Your task to perform on an android device: See recent photos Image 0: 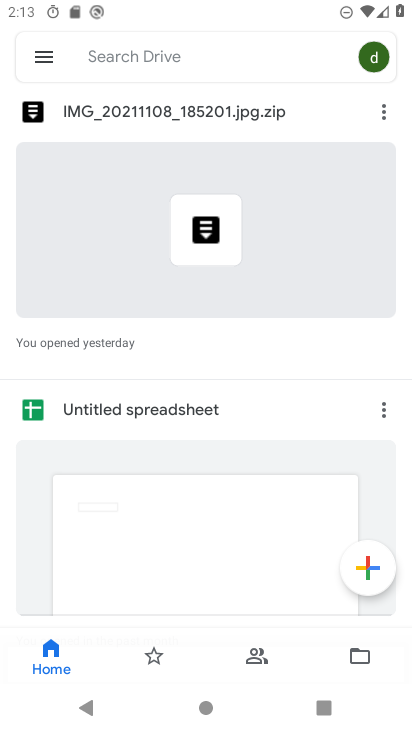
Step 0: press home button
Your task to perform on an android device: See recent photos Image 1: 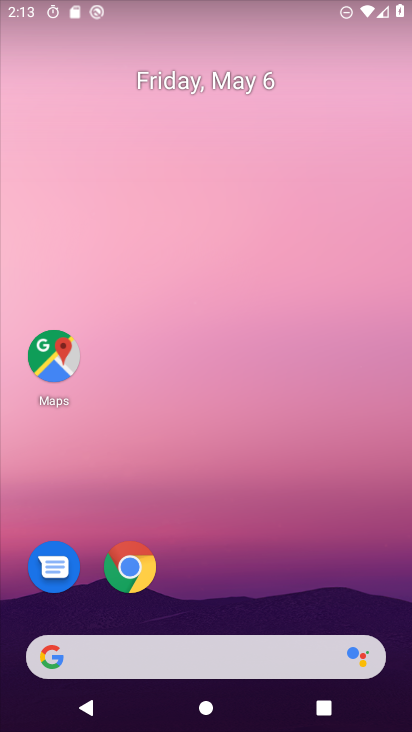
Step 1: drag from (244, 686) to (226, 384)
Your task to perform on an android device: See recent photos Image 2: 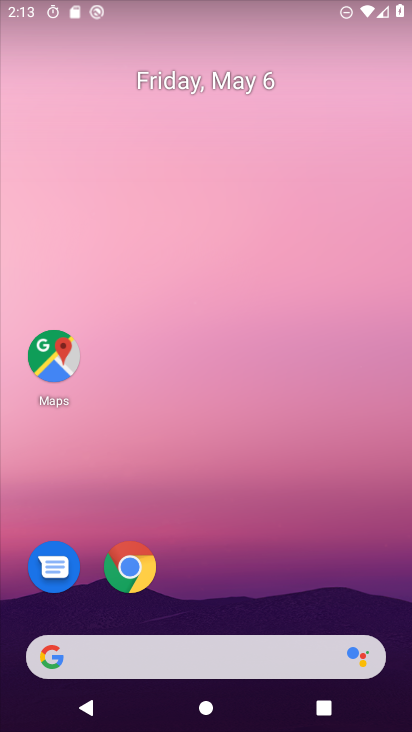
Step 2: drag from (271, 700) to (239, 310)
Your task to perform on an android device: See recent photos Image 3: 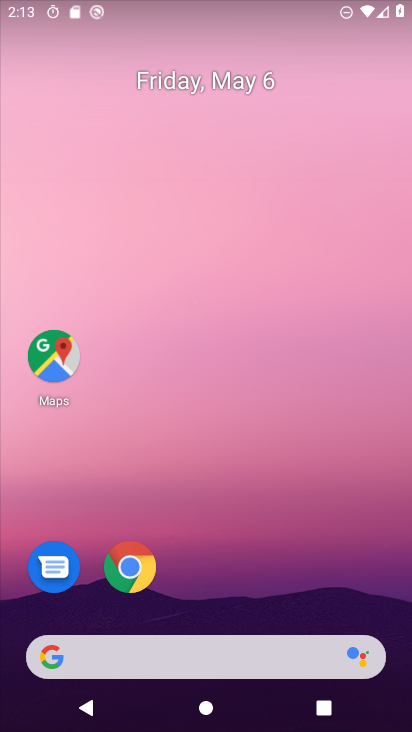
Step 3: drag from (248, 676) to (240, 244)
Your task to perform on an android device: See recent photos Image 4: 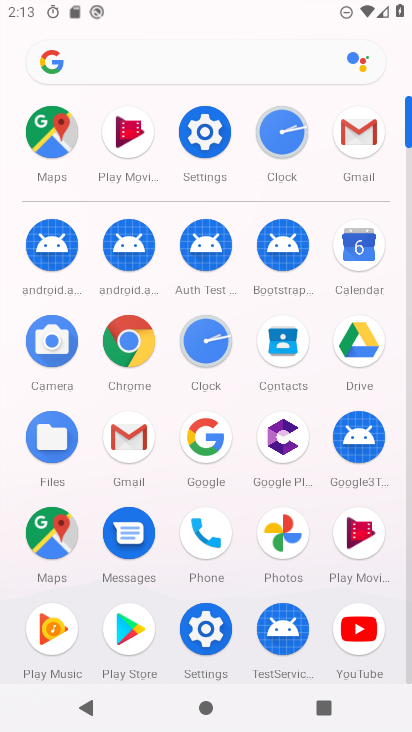
Step 4: click (285, 537)
Your task to perform on an android device: See recent photos Image 5: 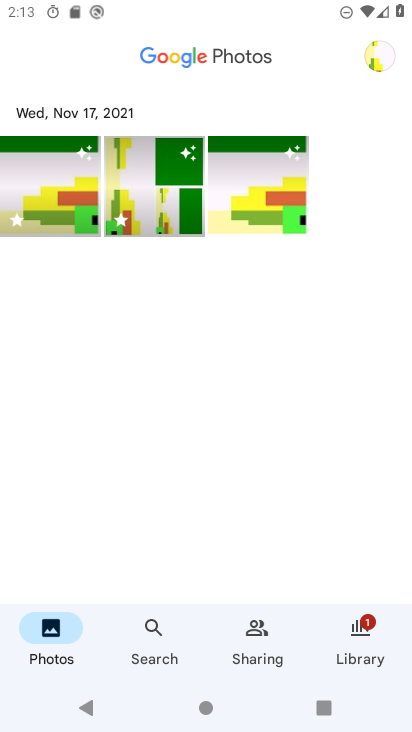
Step 5: task complete